Your task to perform on an android device: Do I have any events this weekend? Image 0: 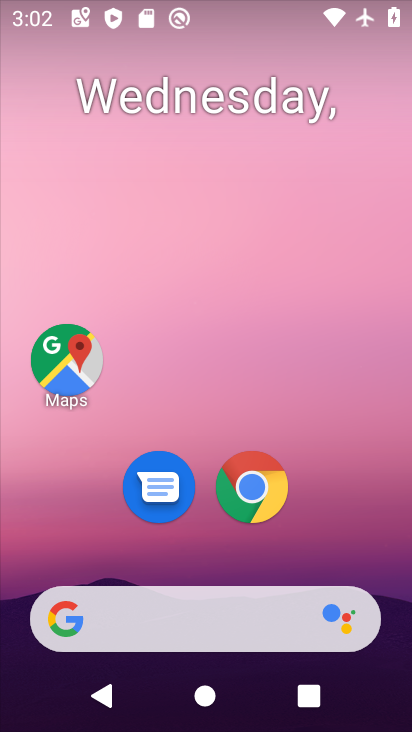
Step 0: drag from (343, 490) to (5, 414)
Your task to perform on an android device: Do I have any events this weekend? Image 1: 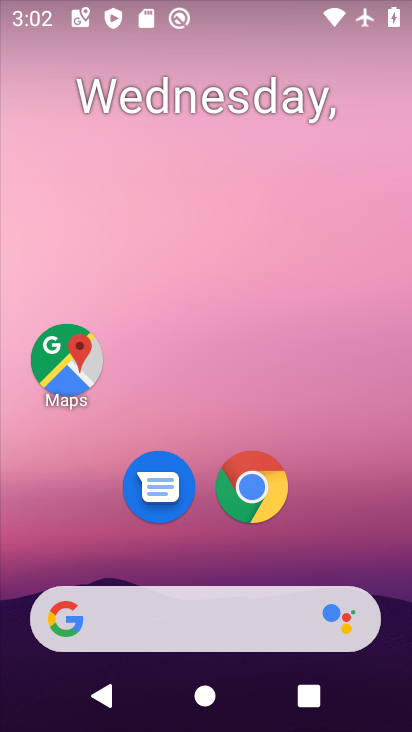
Step 1: drag from (369, 463) to (322, 89)
Your task to perform on an android device: Do I have any events this weekend? Image 2: 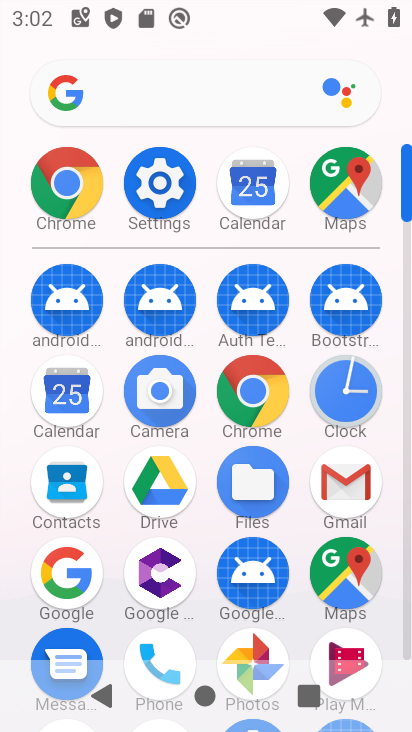
Step 2: click (45, 432)
Your task to perform on an android device: Do I have any events this weekend? Image 3: 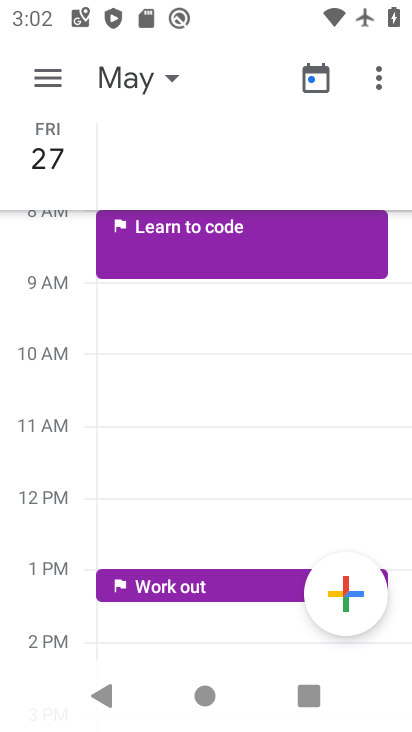
Step 3: click (159, 85)
Your task to perform on an android device: Do I have any events this weekend? Image 4: 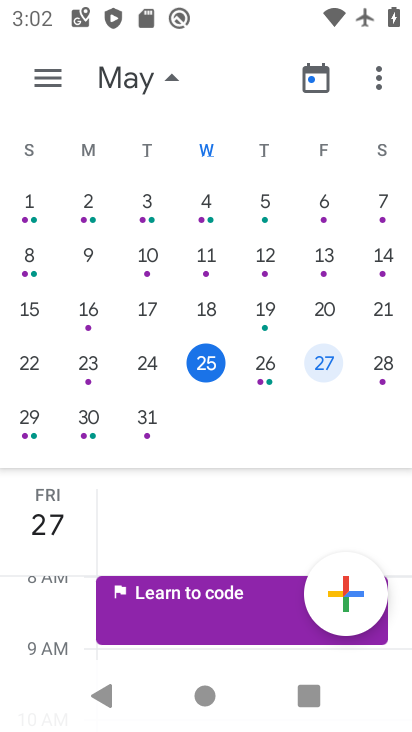
Step 4: click (267, 362)
Your task to perform on an android device: Do I have any events this weekend? Image 5: 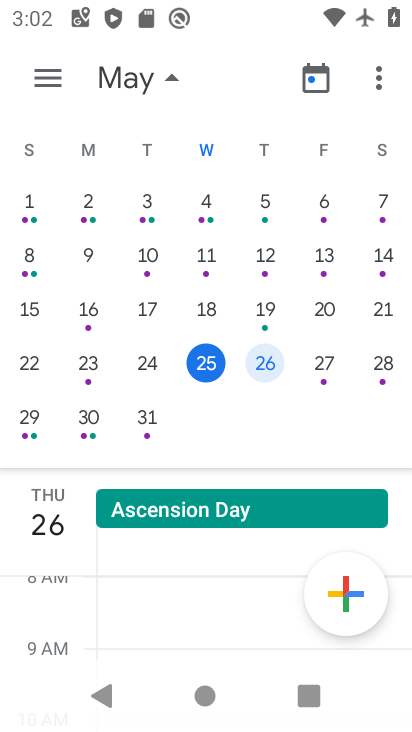
Step 5: task complete